Your task to perform on an android device: turn off wifi Image 0: 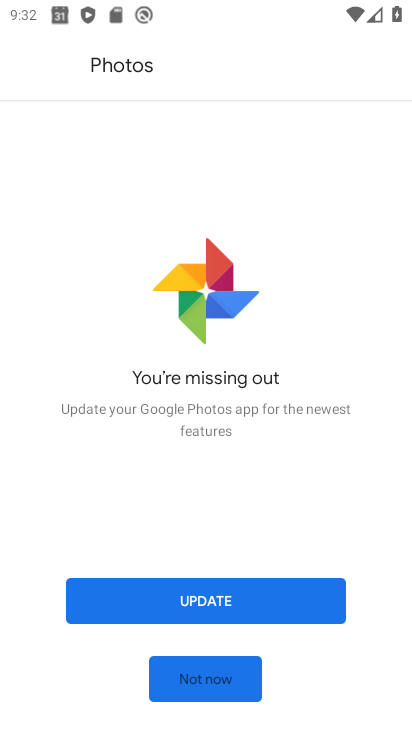
Step 0: press home button
Your task to perform on an android device: turn off wifi Image 1: 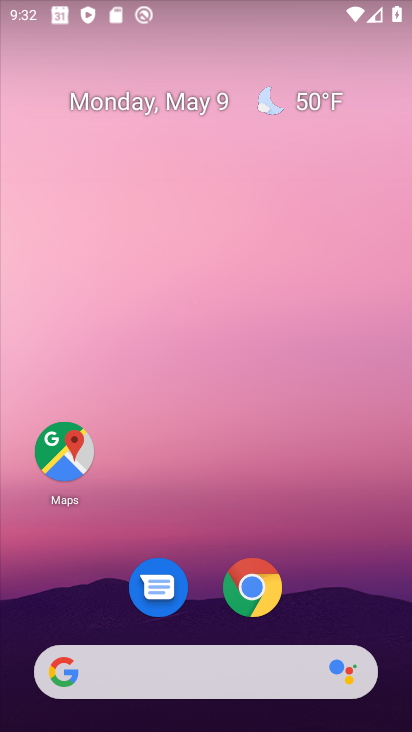
Step 1: drag from (206, 729) to (186, 211)
Your task to perform on an android device: turn off wifi Image 2: 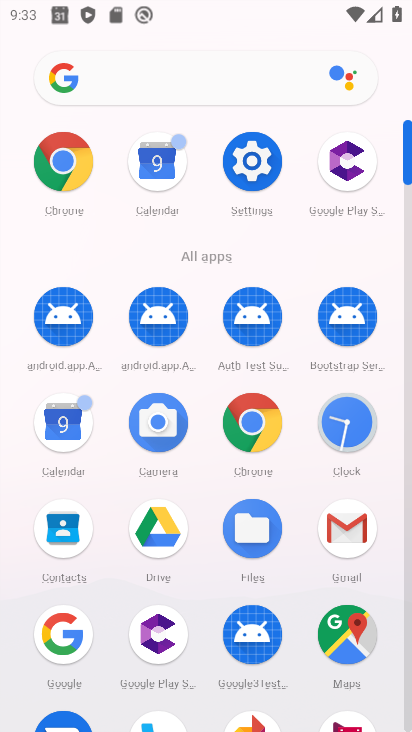
Step 2: click (250, 153)
Your task to perform on an android device: turn off wifi Image 3: 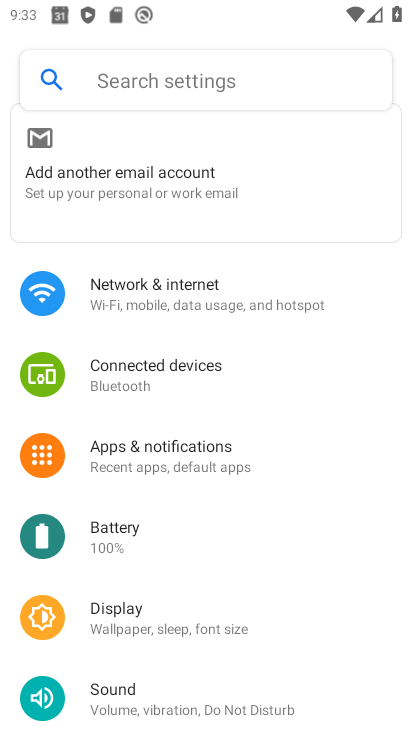
Step 3: click (180, 296)
Your task to perform on an android device: turn off wifi Image 4: 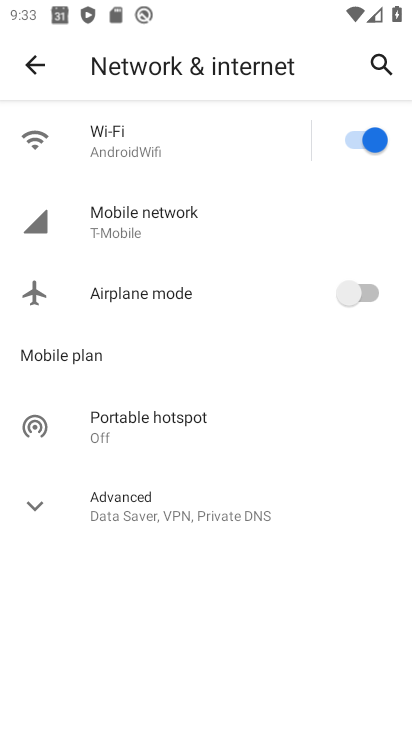
Step 4: click (358, 145)
Your task to perform on an android device: turn off wifi Image 5: 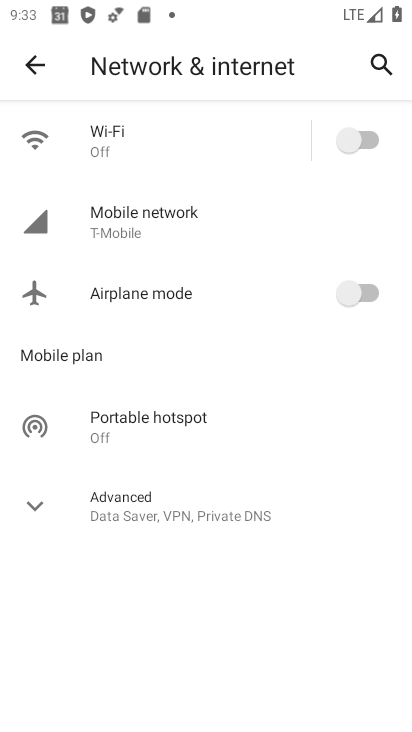
Step 5: task complete